Your task to perform on an android device: Open settings Image 0: 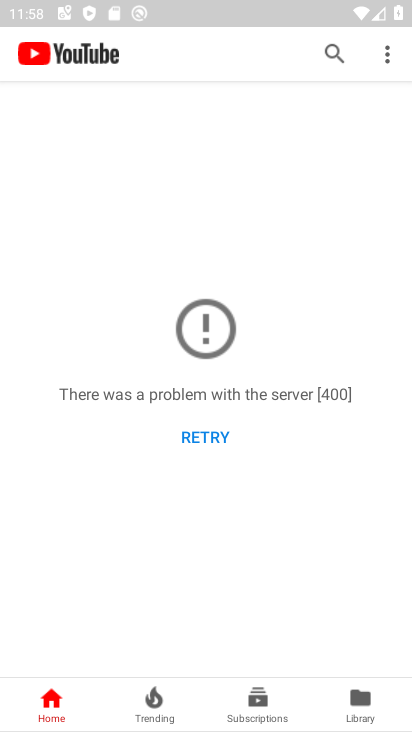
Step 0: press home button
Your task to perform on an android device: Open settings Image 1: 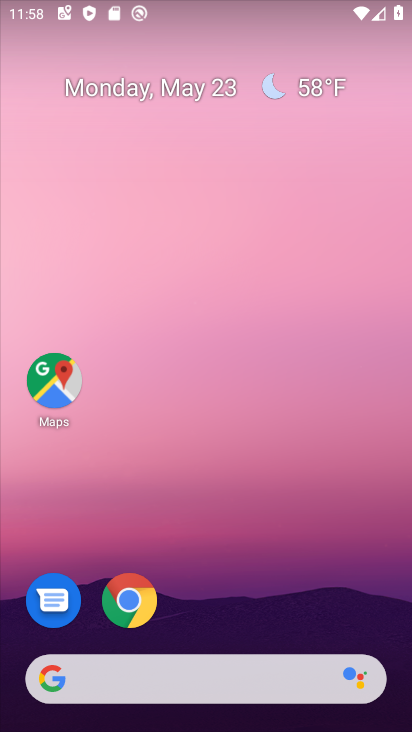
Step 1: drag from (170, 644) to (268, 145)
Your task to perform on an android device: Open settings Image 2: 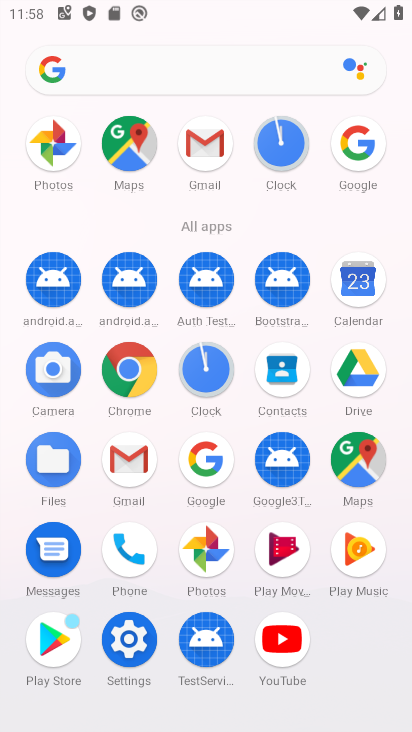
Step 2: click (138, 648)
Your task to perform on an android device: Open settings Image 3: 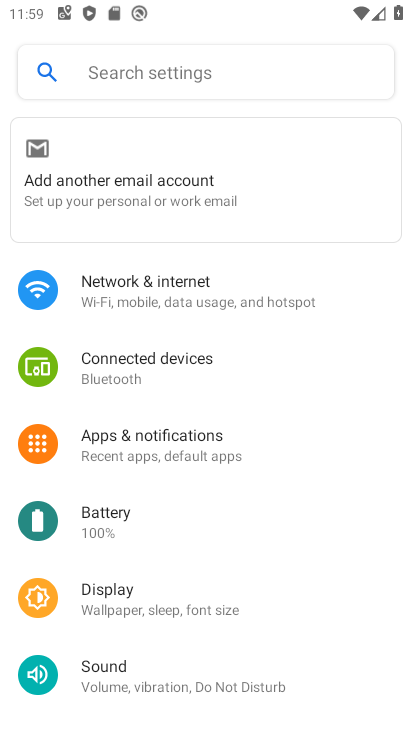
Step 3: task complete